Your task to perform on an android device: Go to Android settings Image 0: 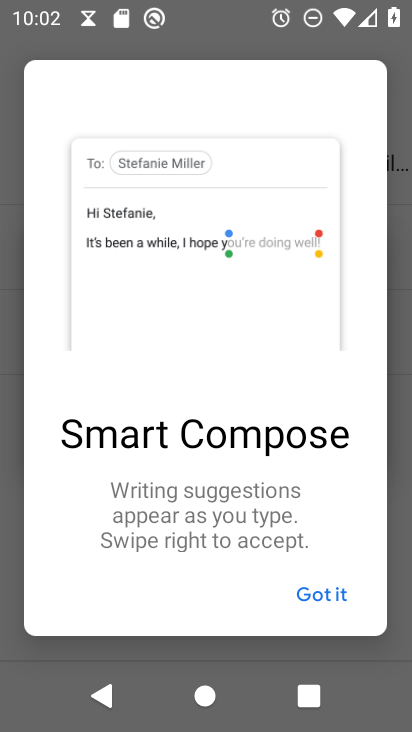
Step 0: press home button
Your task to perform on an android device: Go to Android settings Image 1: 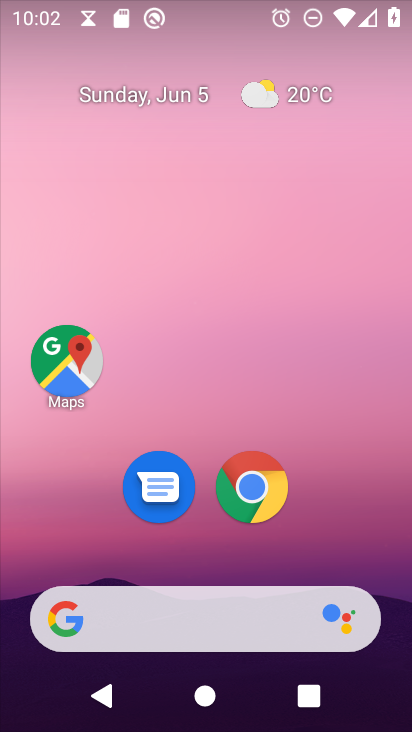
Step 1: drag from (320, 556) to (284, 177)
Your task to perform on an android device: Go to Android settings Image 2: 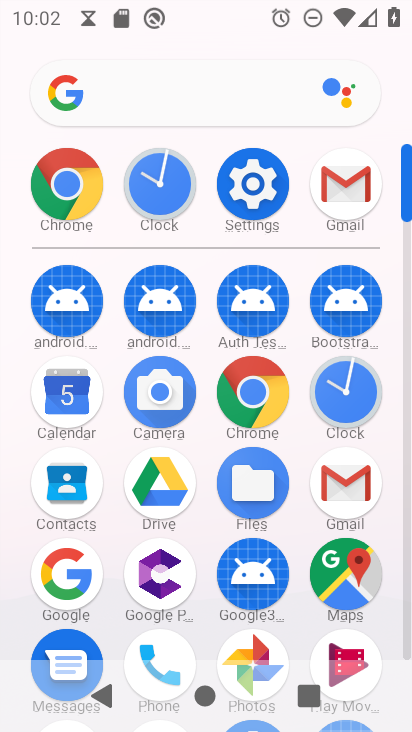
Step 2: click (235, 157)
Your task to perform on an android device: Go to Android settings Image 3: 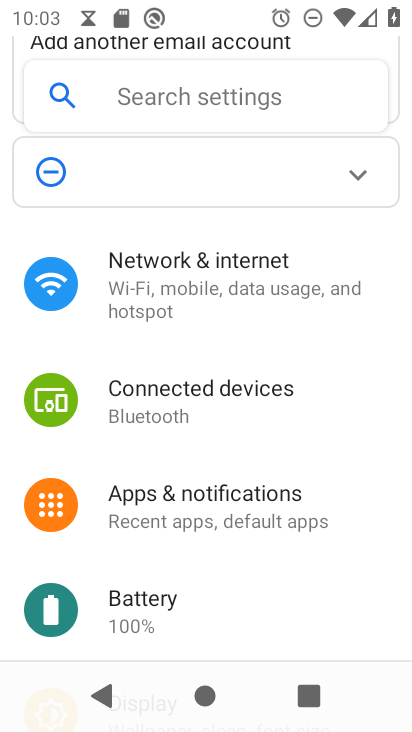
Step 3: task complete